Your task to perform on an android device: Open location settings Image 0: 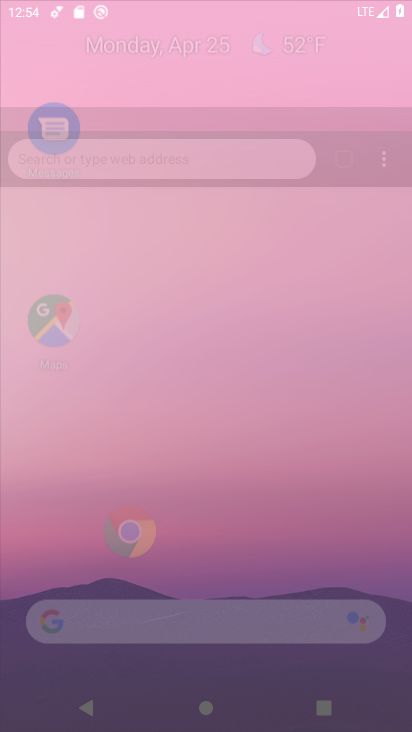
Step 0: drag from (258, 395) to (281, 167)
Your task to perform on an android device: Open location settings Image 1: 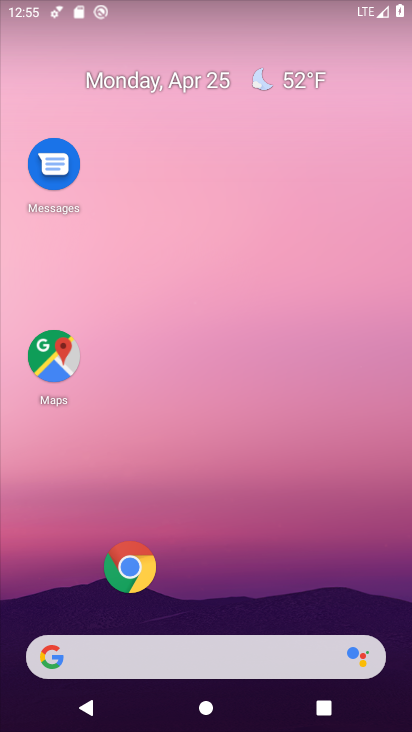
Step 1: drag from (276, 409) to (311, 90)
Your task to perform on an android device: Open location settings Image 2: 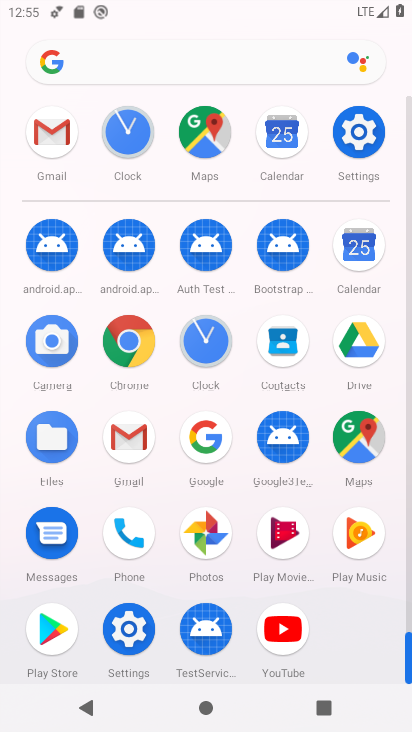
Step 2: click (383, 114)
Your task to perform on an android device: Open location settings Image 3: 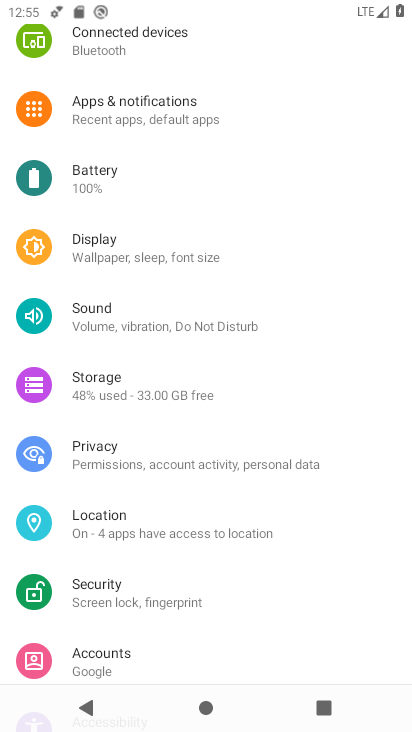
Step 3: click (180, 524)
Your task to perform on an android device: Open location settings Image 4: 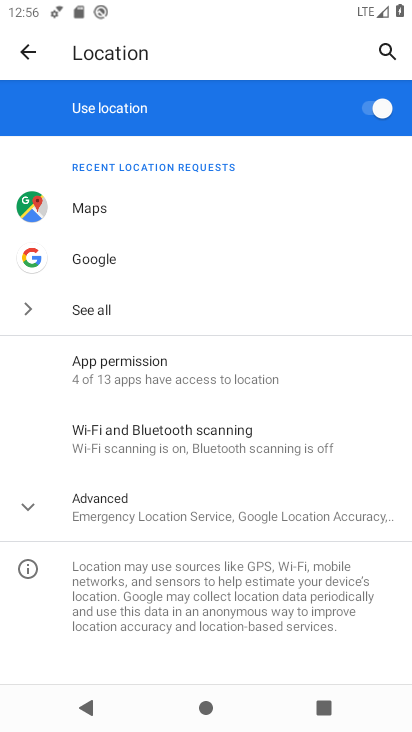
Step 4: task complete